Your task to perform on an android device: Show me popular videos on Youtube Image 0: 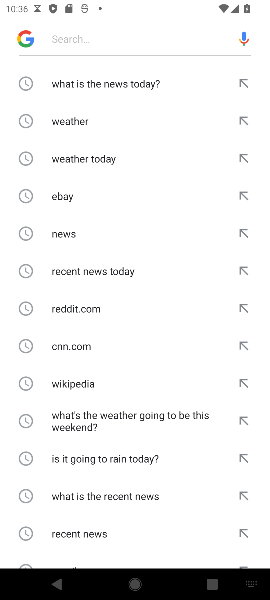
Step 0: press home button
Your task to perform on an android device: Show me popular videos on Youtube Image 1: 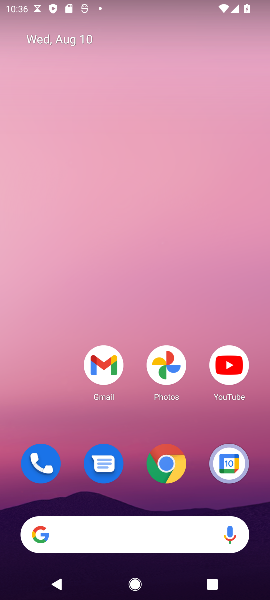
Step 1: click (225, 363)
Your task to perform on an android device: Show me popular videos on Youtube Image 2: 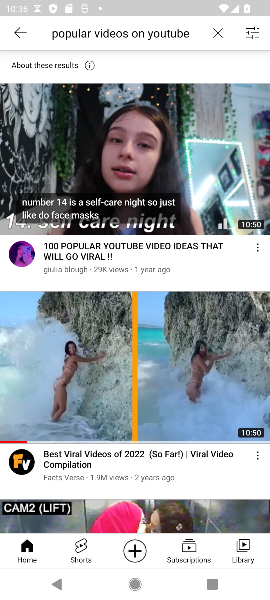
Step 2: click (13, 35)
Your task to perform on an android device: Show me popular videos on Youtube Image 3: 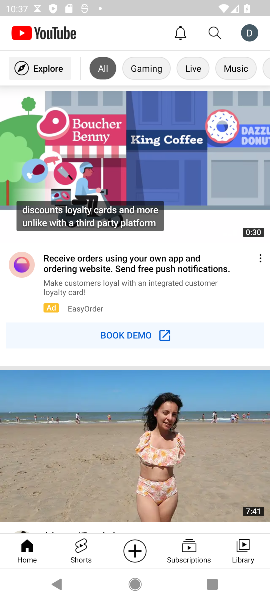
Step 3: click (215, 29)
Your task to perform on an android device: Show me popular videos on Youtube Image 4: 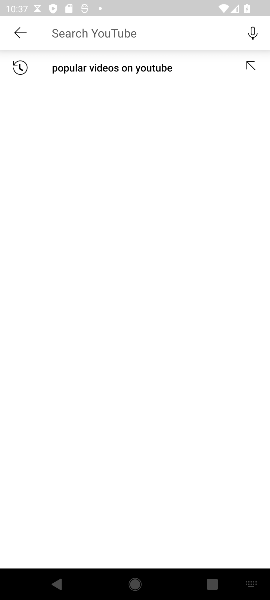
Step 4: click (127, 73)
Your task to perform on an android device: Show me popular videos on Youtube Image 5: 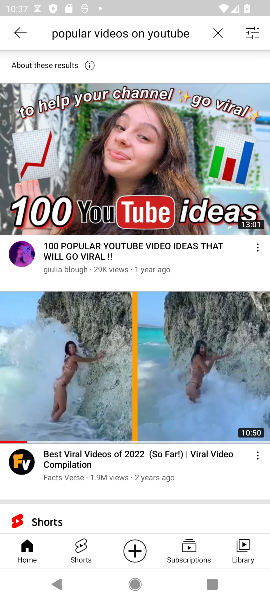
Step 5: task complete